Your task to perform on an android device: Open Google Maps Image 0: 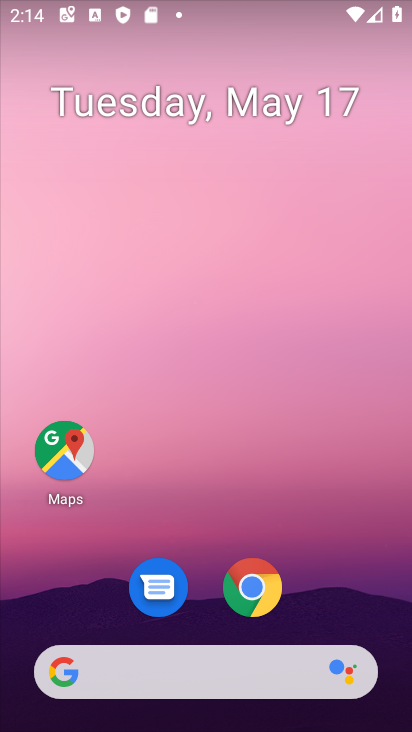
Step 0: drag from (203, 611) to (295, 130)
Your task to perform on an android device: Open Google Maps Image 1: 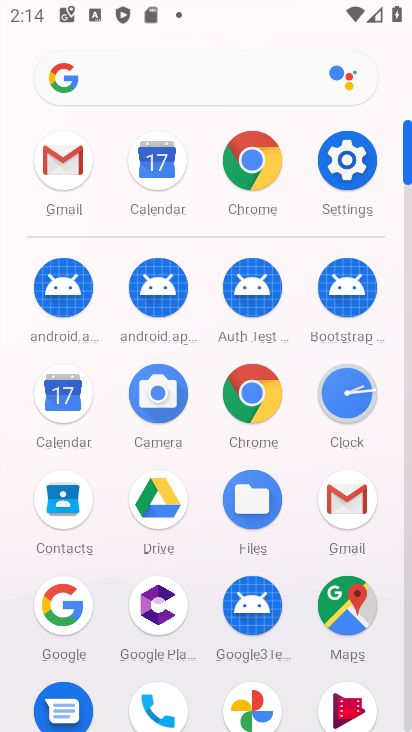
Step 1: click (349, 624)
Your task to perform on an android device: Open Google Maps Image 2: 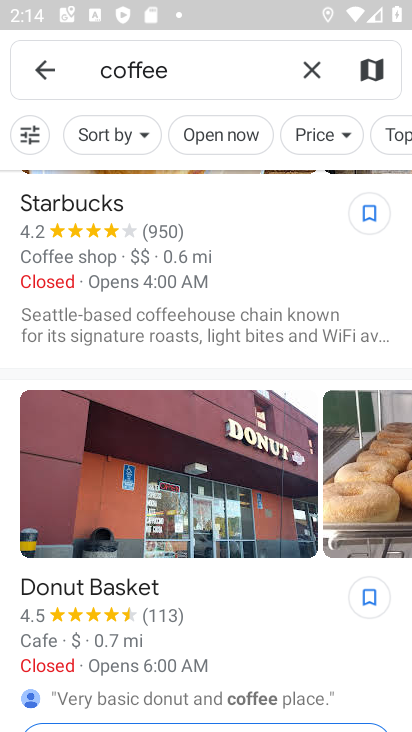
Step 2: task complete